Your task to perform on an android device: open app "Upside-Cash back on gas & food" (install if not already installed), go to login, and select forgot password Image 0: 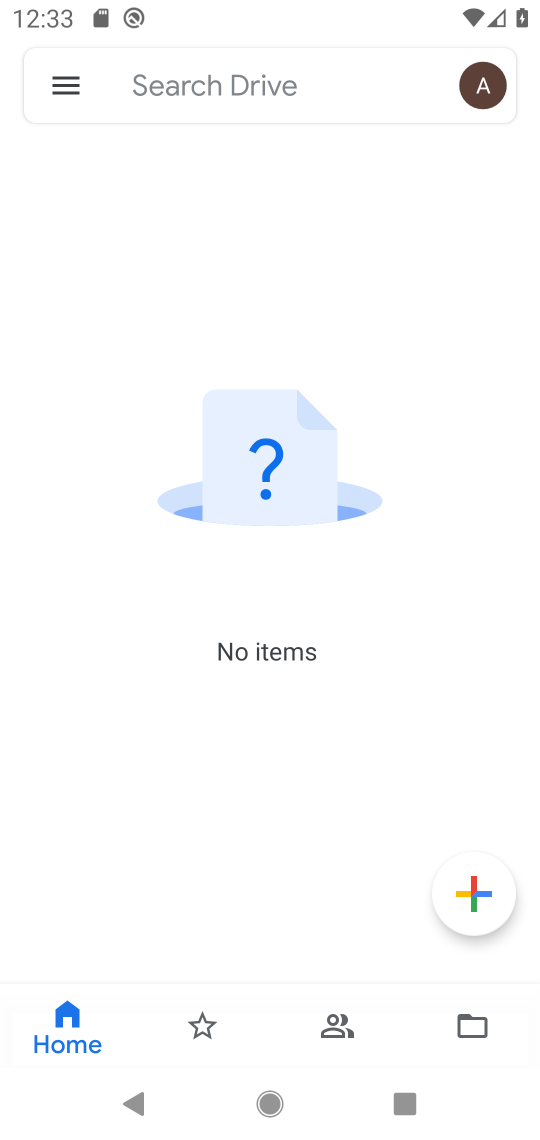
Step 0: press home button
Your task to perform on an android device: open app "Upside-Cash back on gas & food" (install if not already installed), go to login, and select forgot password Image 1: 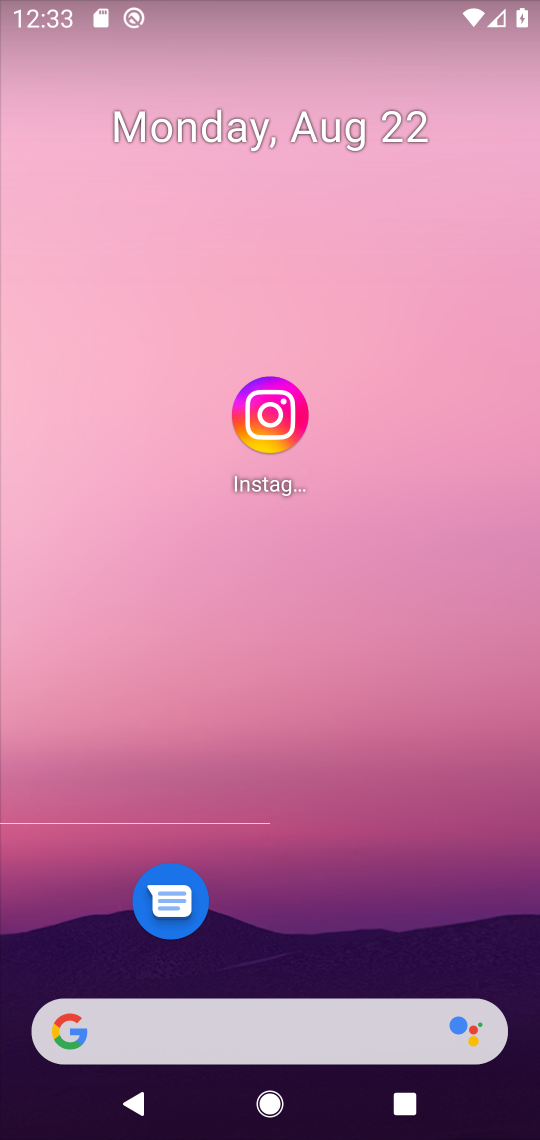
Step 1: drag from (354, 976) to (359, 127)
Your task to perform on an android device: open app "Upside-Cash back on gas & food" (install if not already installed), go to login, and select forgot password Image 2: 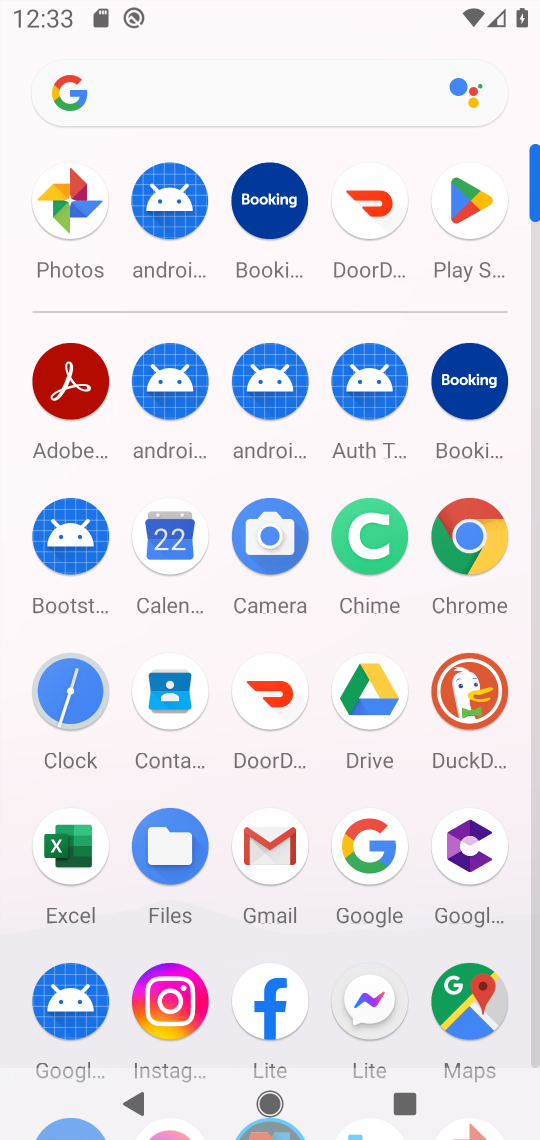
Step 2: click (473, 200)
Your task to perform on an android device: open app "Upside-Cash back on gas & food" (install if not already installed), go to login, and select forgot password Image 3: 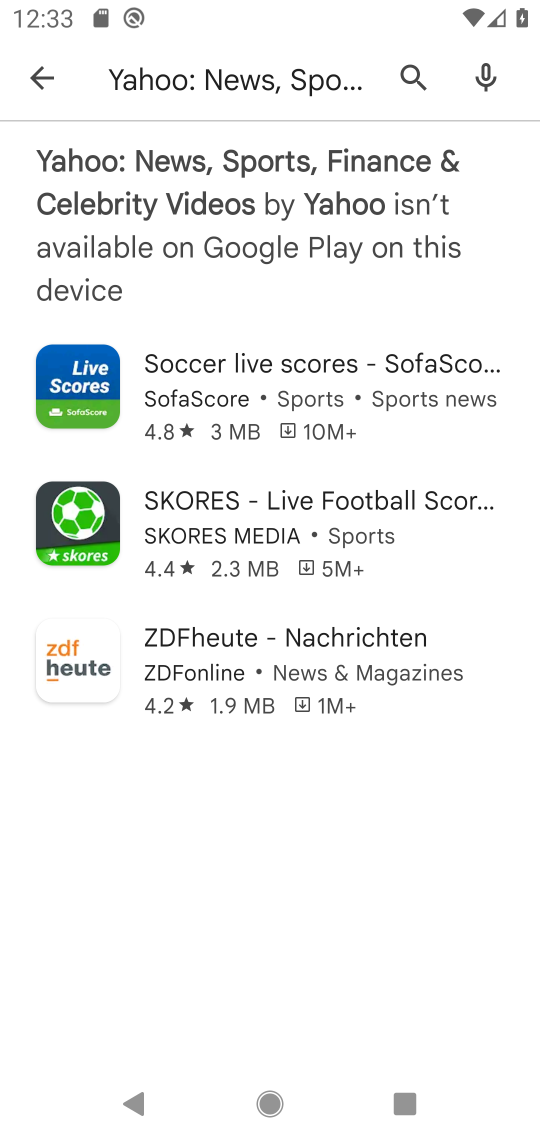
Step 3: click (413, 86)
Your task to perform on an android device: open app "Upside-Cash back on gas & food" (install if not already installed), go to login, and select forgot password Image 4: 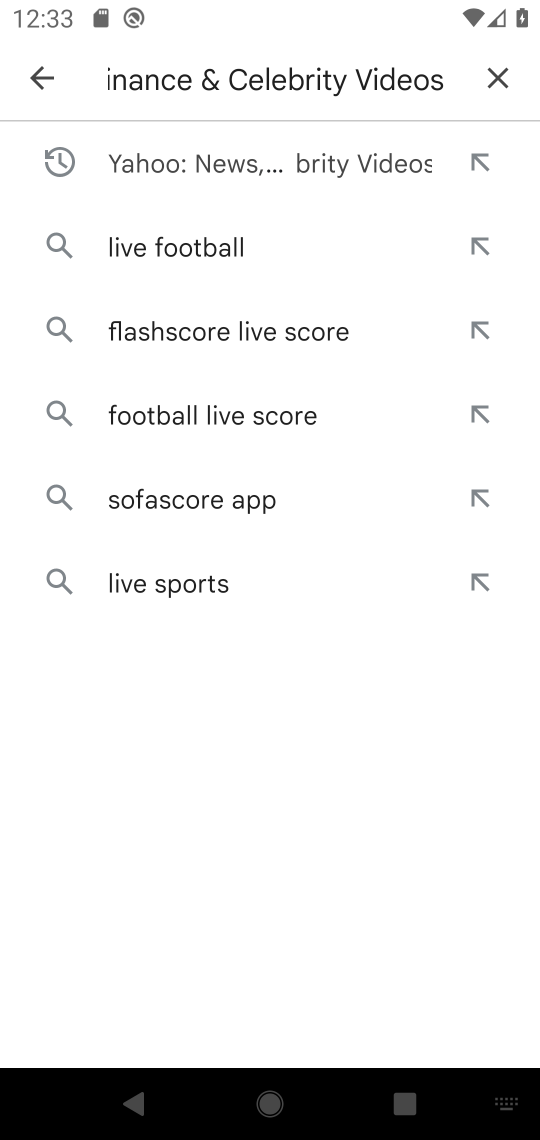
Step 4: click (496, 75)
Your task to perform on an android device: open app "Upside-Cash back on gas & food" (install if not already installed), go to login, and select forgot password Image 5: 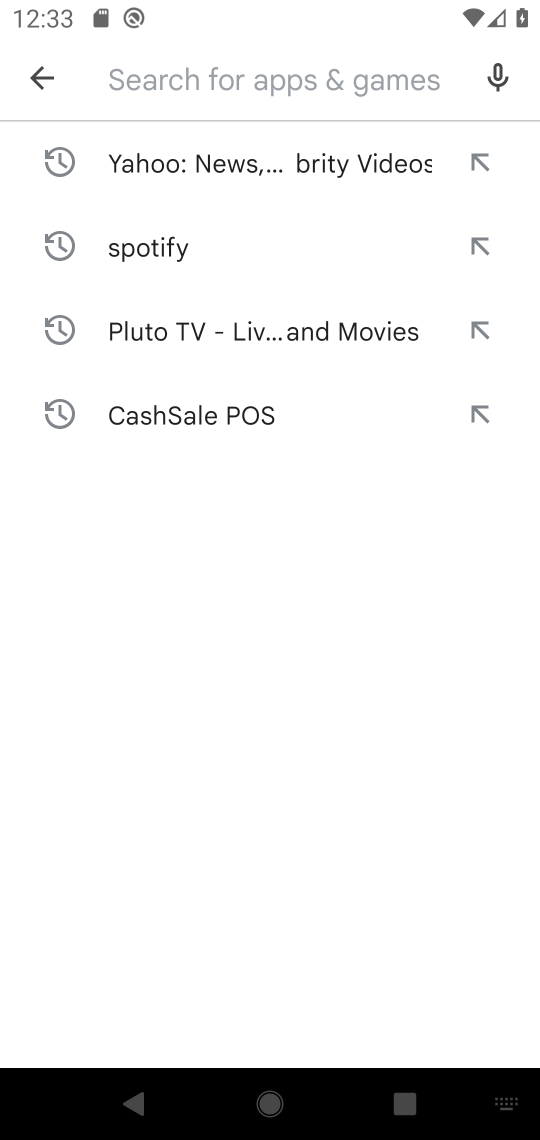
Step 5: type "upside "
Your task to perform on an android device: open app "Upside-Cash back on gas & food" (install if not already installed), go to login, and select forgot password Image 6: 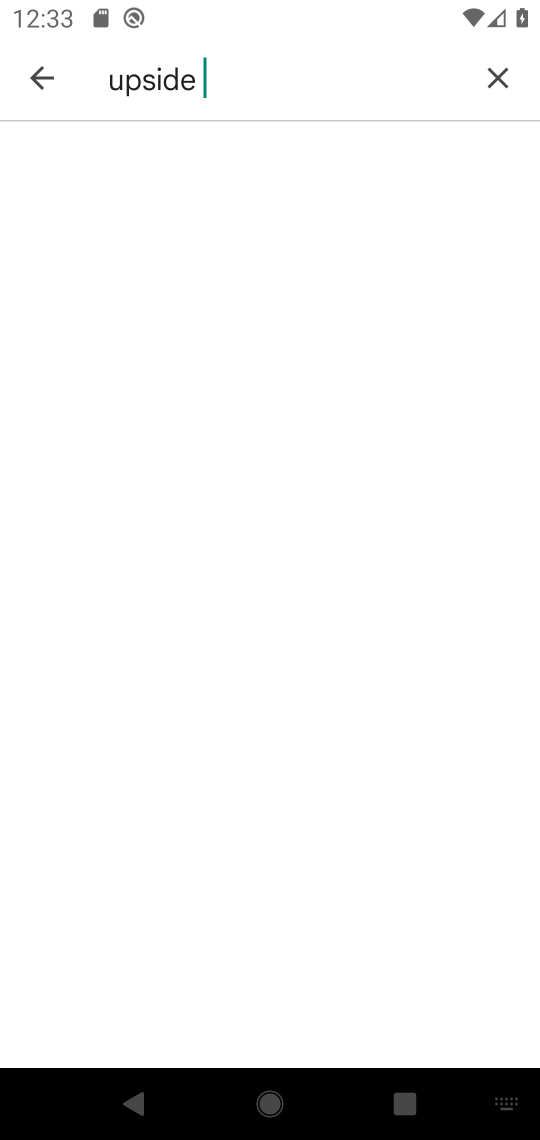
Step 6: task complete